Your task to perform on an android device: snooze an email in the gmail app Image 0: 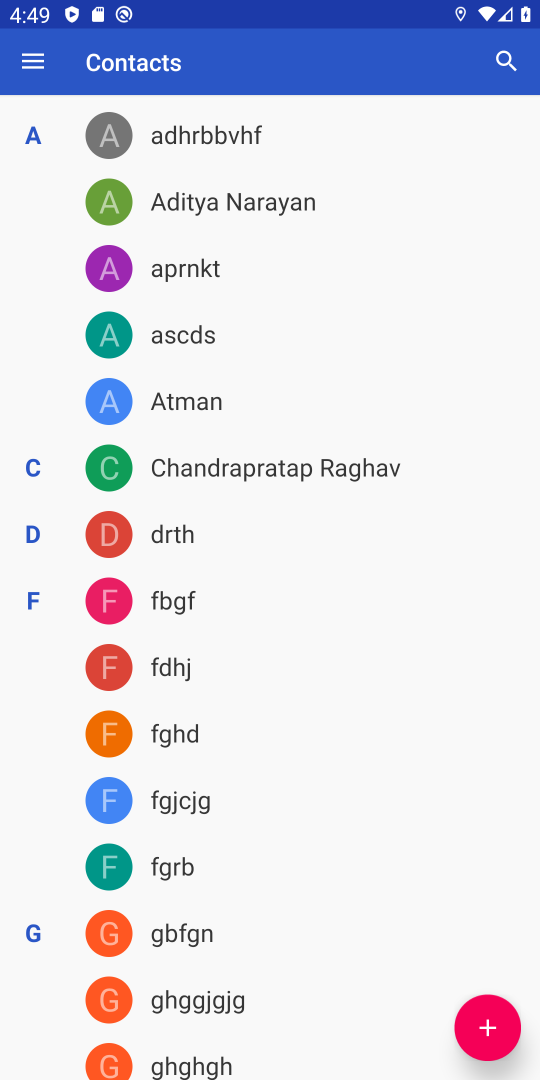
Step 0: press back button
Your task to perform on an android device: snooze an email in the gmail app Image 1: 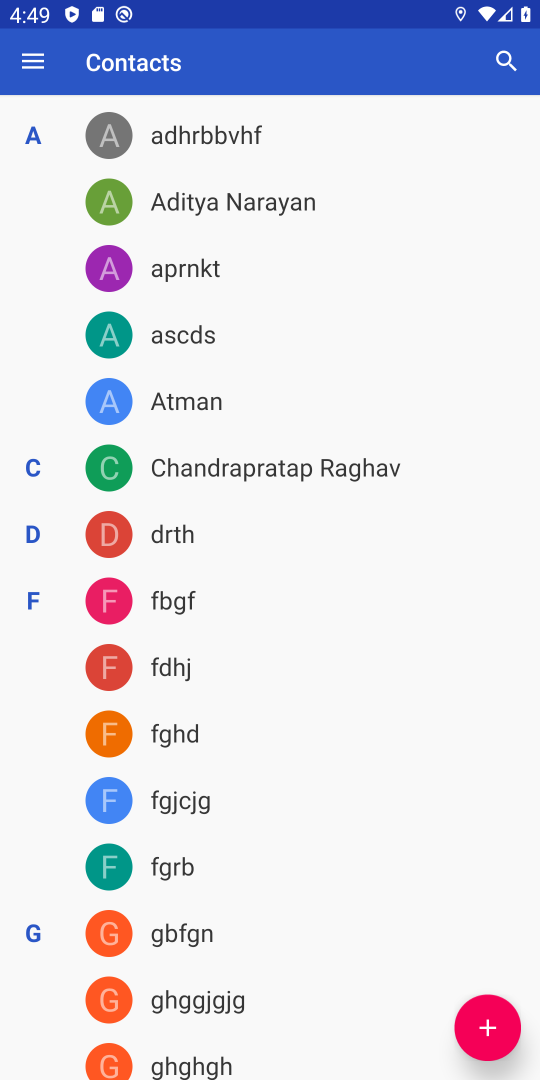
Step 1: press back button
Your task to perform on an android device: snooze an email in the gmail app Image 2: 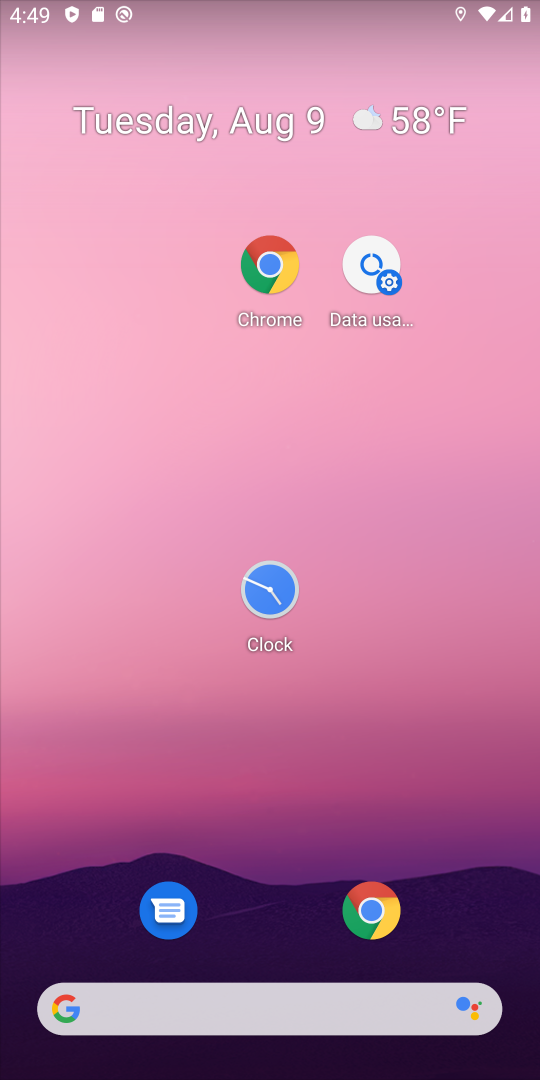
Step 2: press home button
Your task to perform on an android device: snooze an email in the gmail app Image 3: 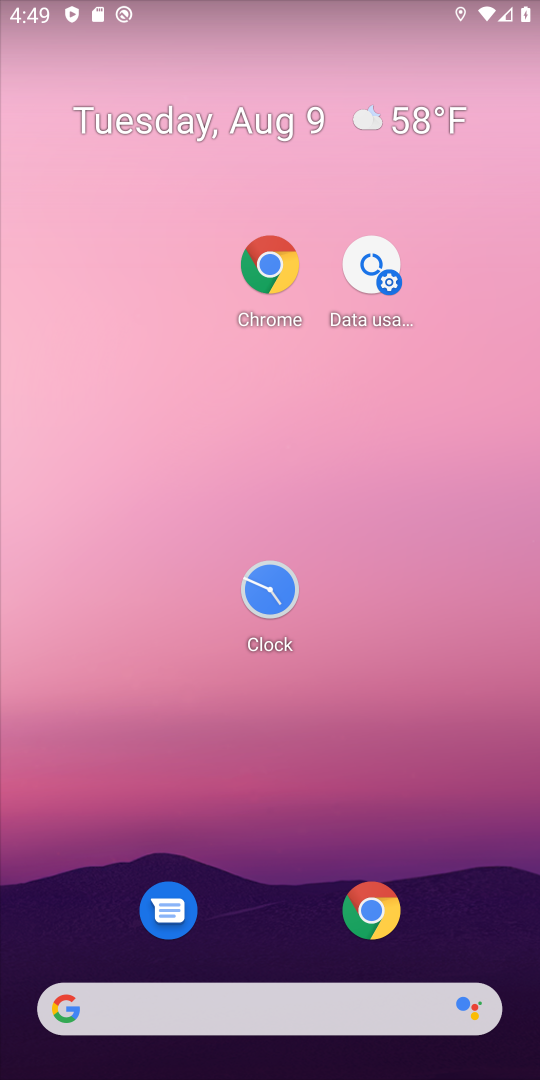
Step 3: drag from (295, 1052) to (236, 237)
Your task to perform on an android device: snooze an email in the gmail app Image 4: 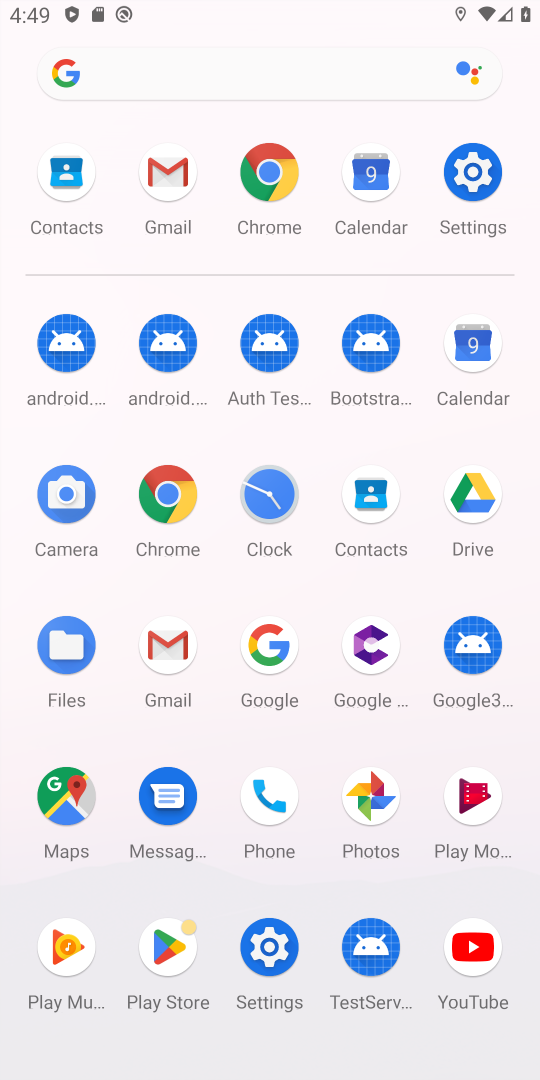
Step 4: click (159, 186)
Your task to perform on an android device: snooze an email in the gmail app Image 5: 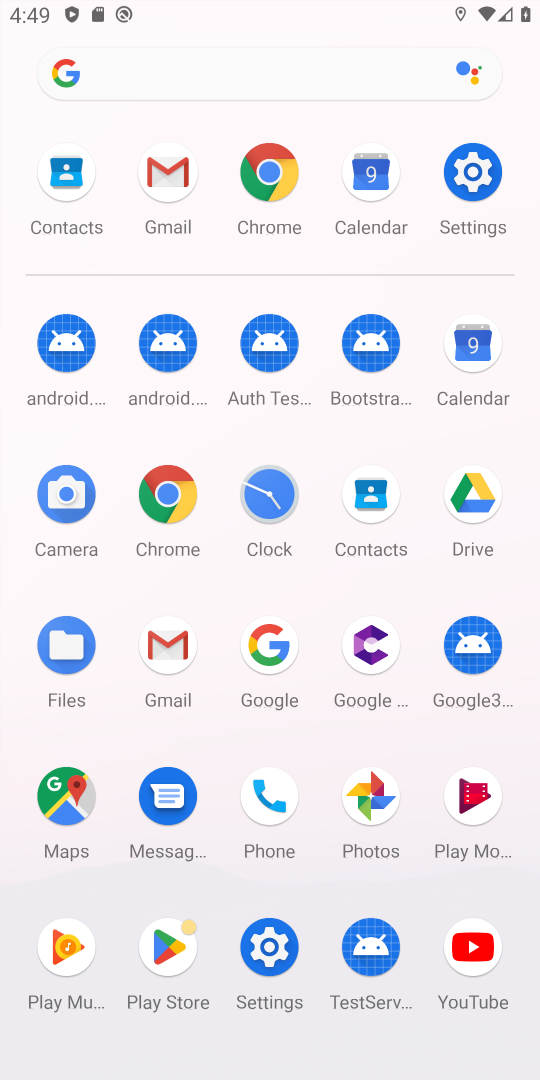
Step 5: click (159, 181)
Your task to perform on an android device: snooze an email in the gmail app Image 6: 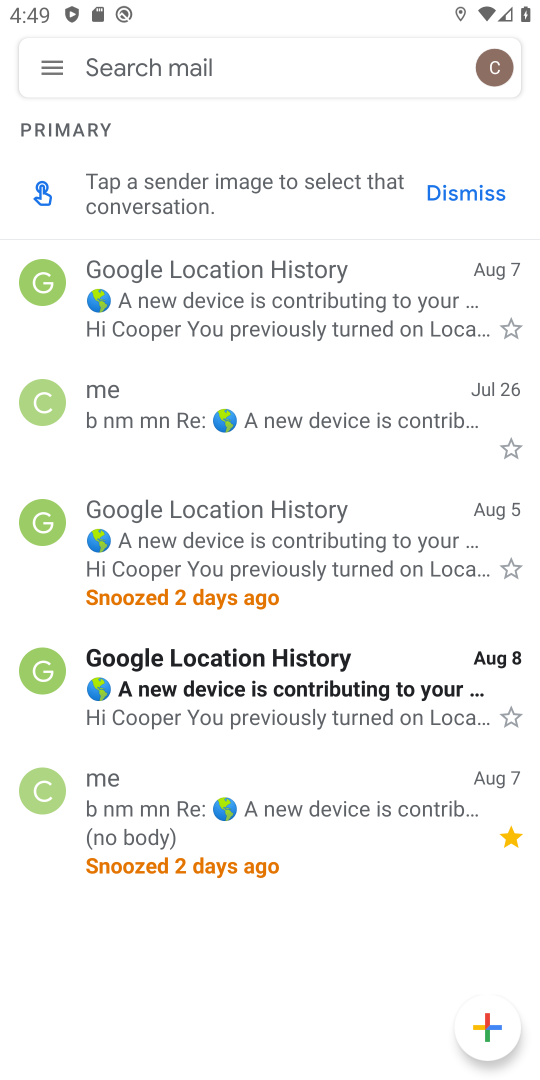
Step 6: click (64, 65)
Your task to perform on an android device: snooze an email in the gmail app Image 7: 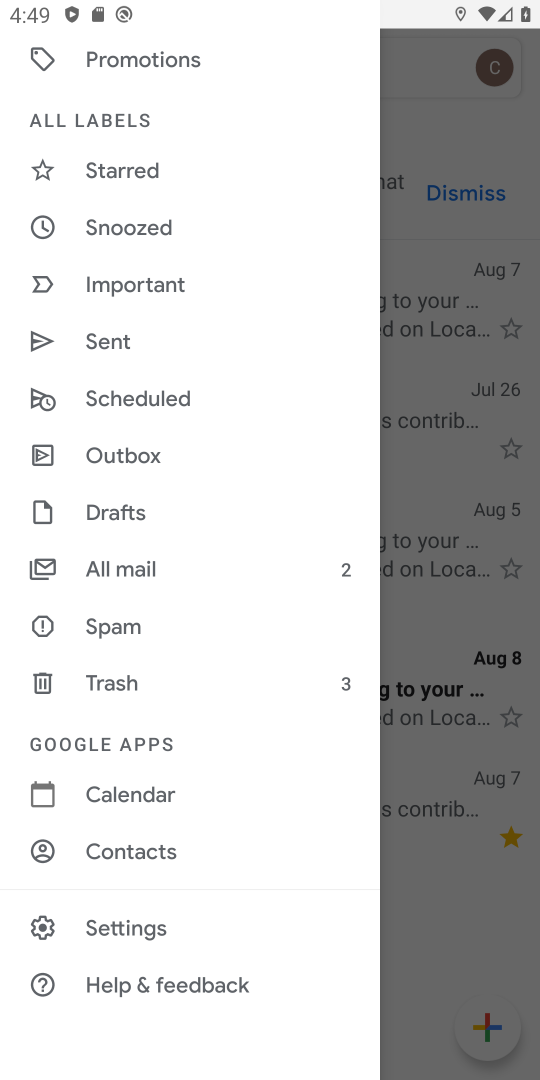
Step 7: click (432, 315)
Your task to perform on an android device: snooze an email in the gmail app Image 8: 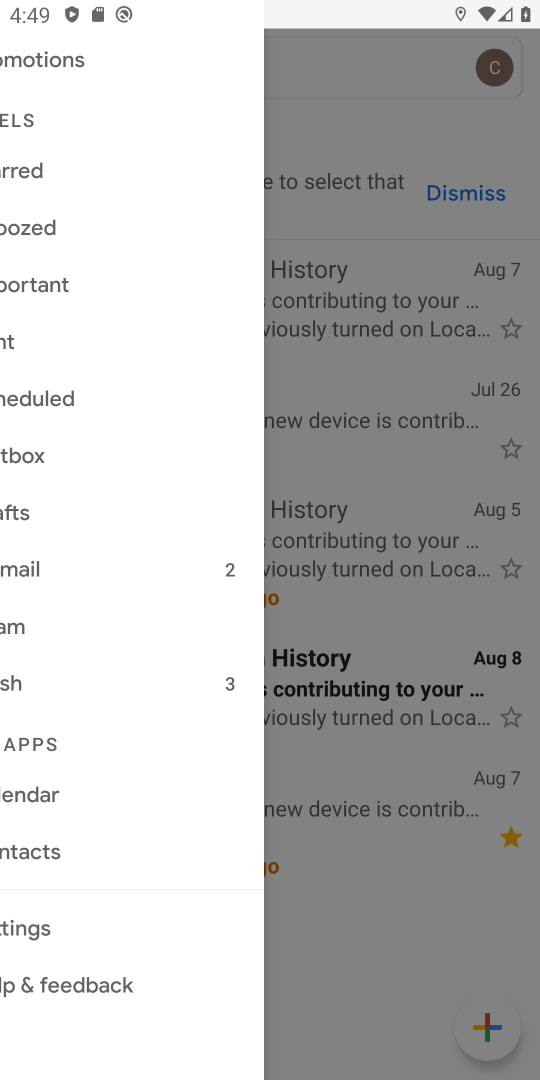
Step 8: click (419, 316)
Your task to perform on an android device: snooze an email in the gmail app Image 9: 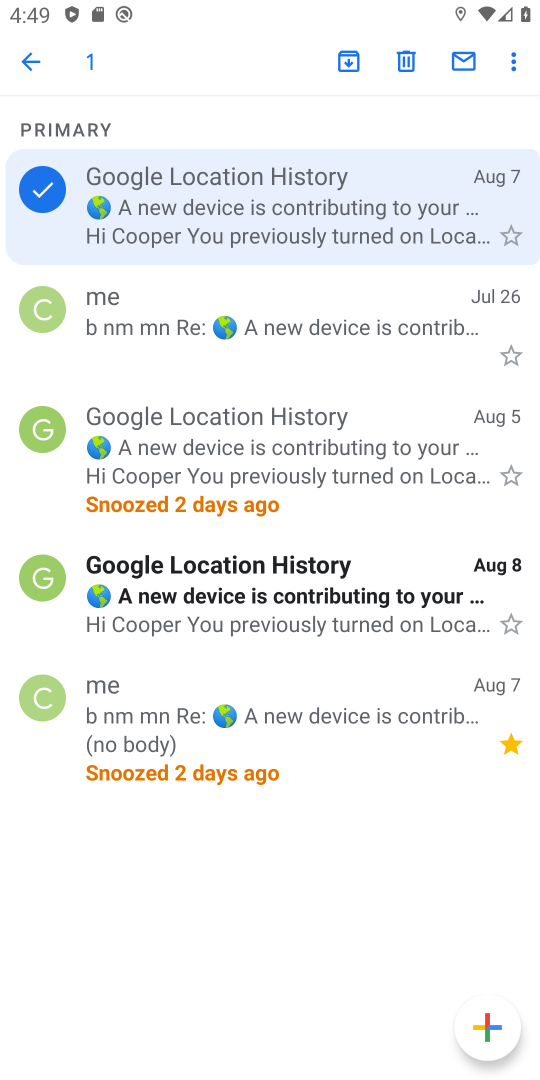
Step 9: click (512, 59)
Your task to perform on an android device: snooze an email in the gmail app Image 10: 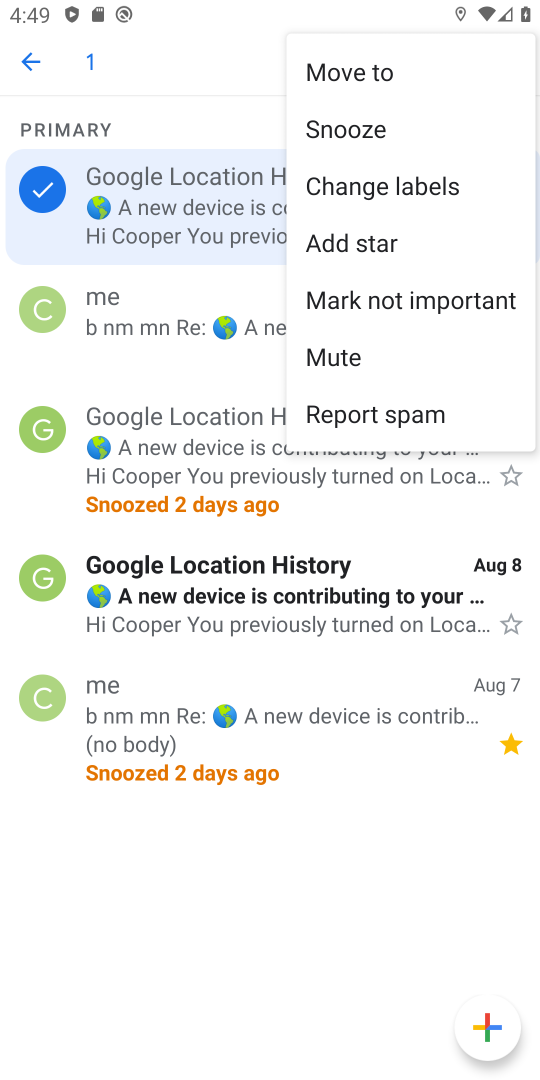
Step 10: click (342, 140)
Your task to perform on an android device: snooze an email in the gmail app Image 11: 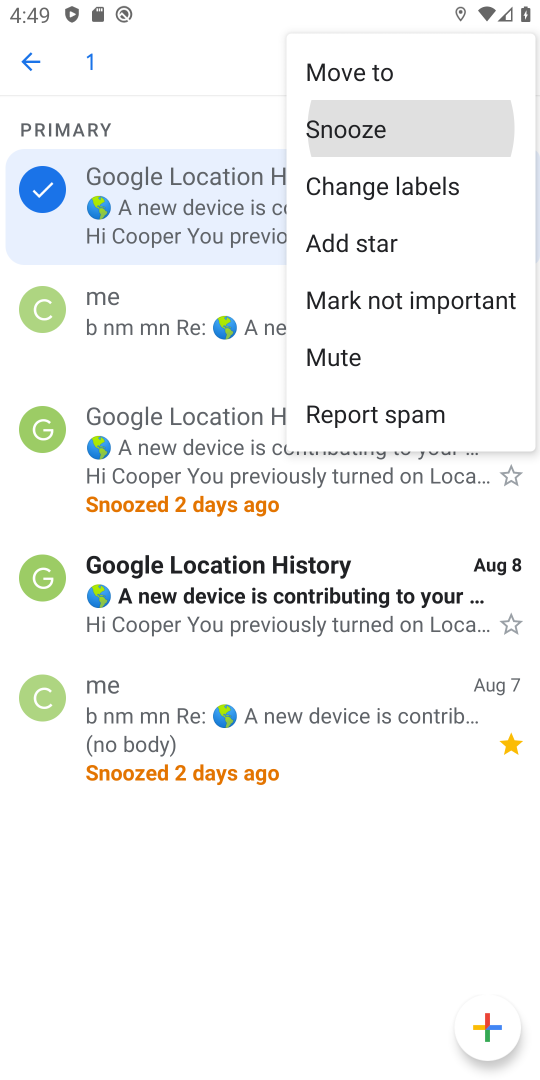
Step 11: click (353, 144)
Your task to perform on an android device: snooze an email in the gmail app Image 12: 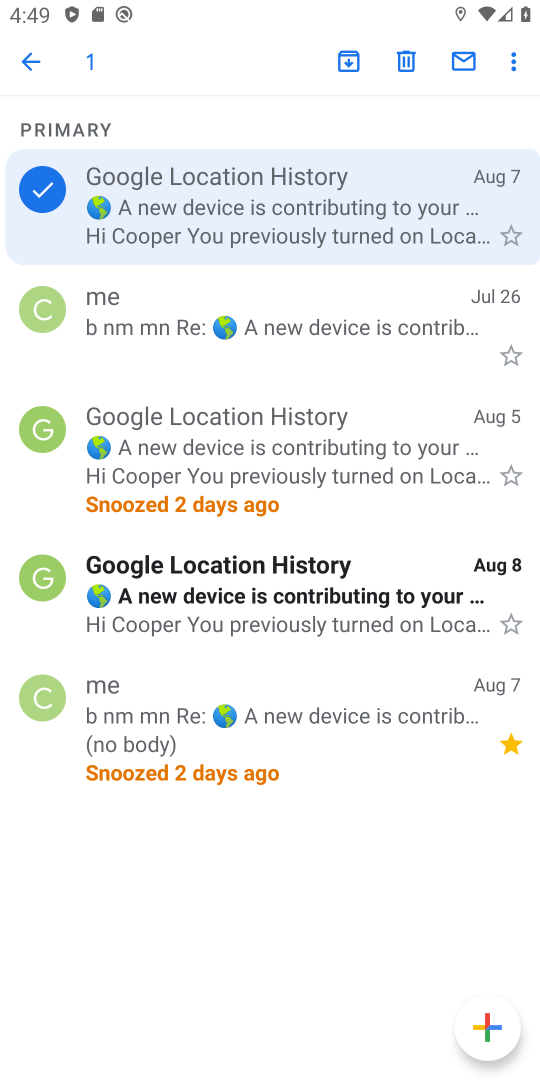
Step 12: task complete